Your task to perform on an android device: change the clock style Image 0: 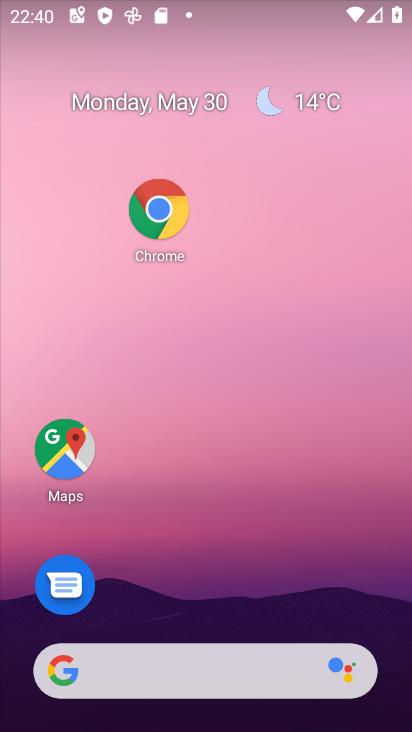
Step 0: drag from (186, 604) to (217, 188)
Your task to perform on an android device: change the clock style Image 1: 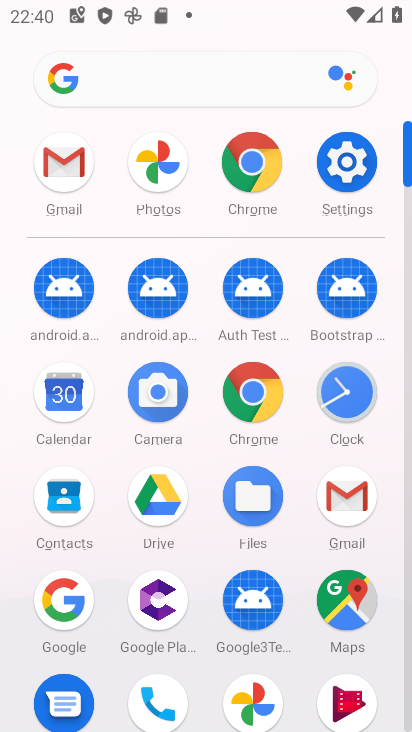
Step 1: click (345, 148)
Your task to perform on an android device: change the clock style Image 2: 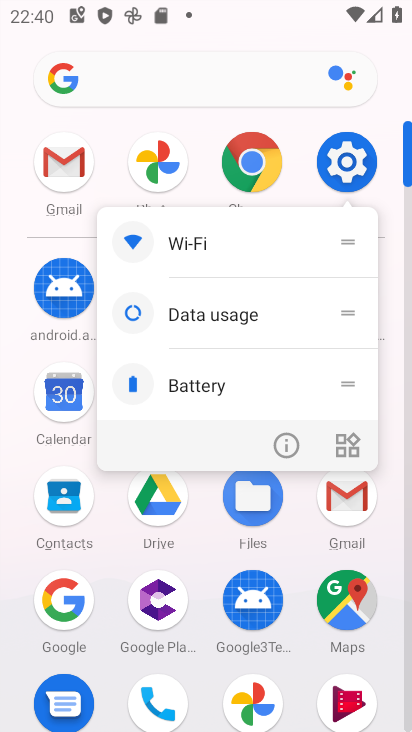
Step 2: click (398, 376)
Your task to perform on an android device: change the clock style Image 3: 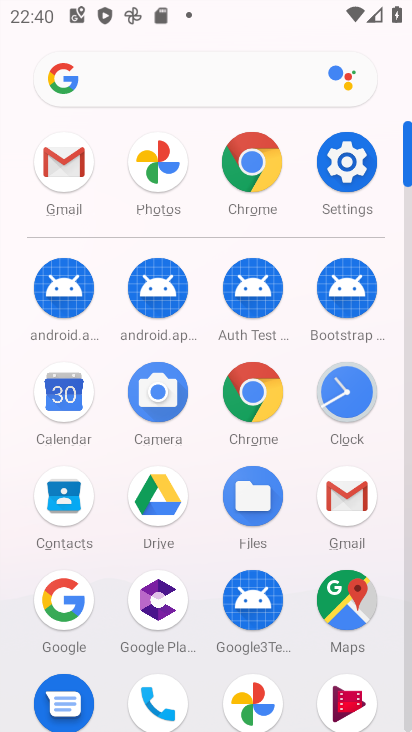
Step 3: click (348, 386)
Your task to perform on an android device: change the clock style Image 4: 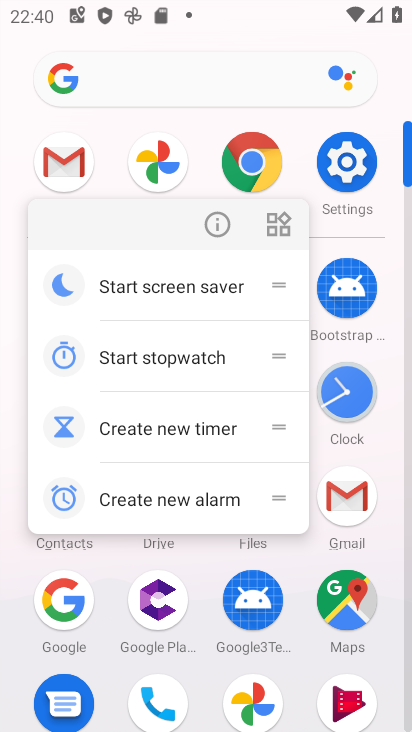
Step 4: click (221, 229)
Your task to perform on an android device: change the clock style Image 5: 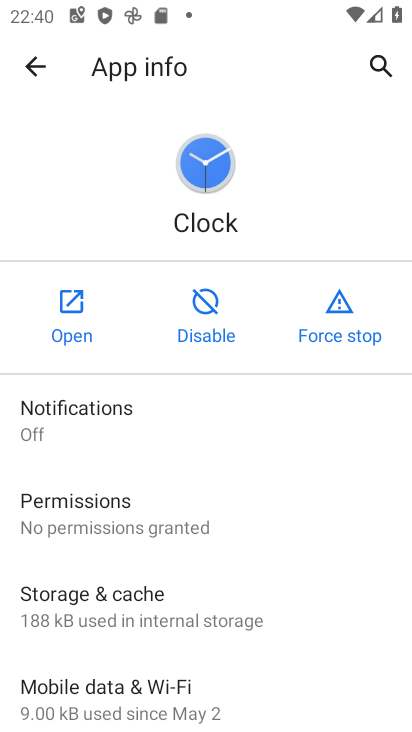
Step 5: click (90, 308)
Your task to perform on an android device: change the clock style Image 6: 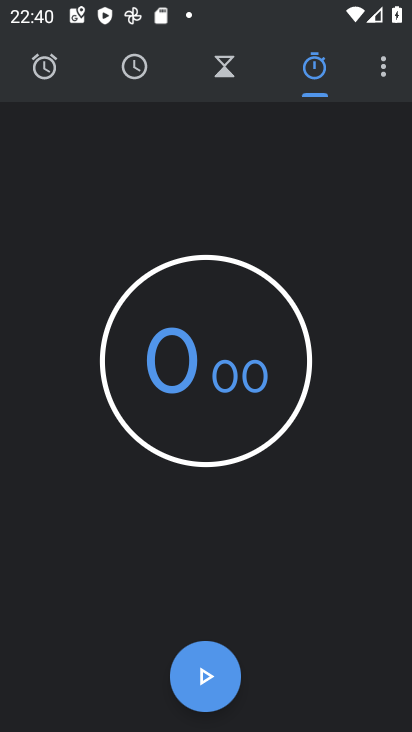
Step 6: drag from (376, 74) to (252, 149)
Your task to perform on an android device: change the clock style Image 7: 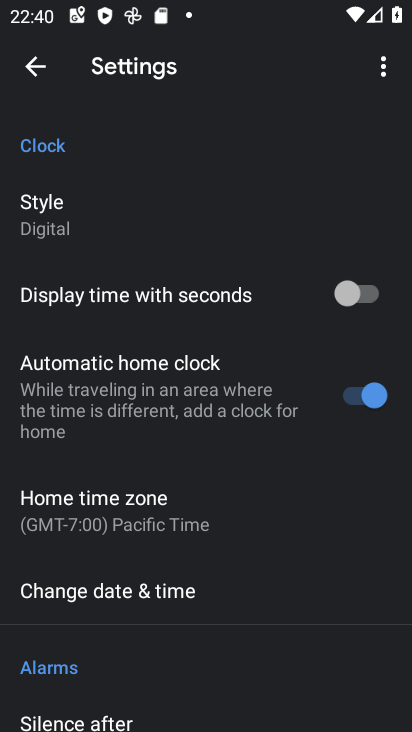
Step 7: click (96, 222)
Your task to perform on an android device: change the clock style Image 8: 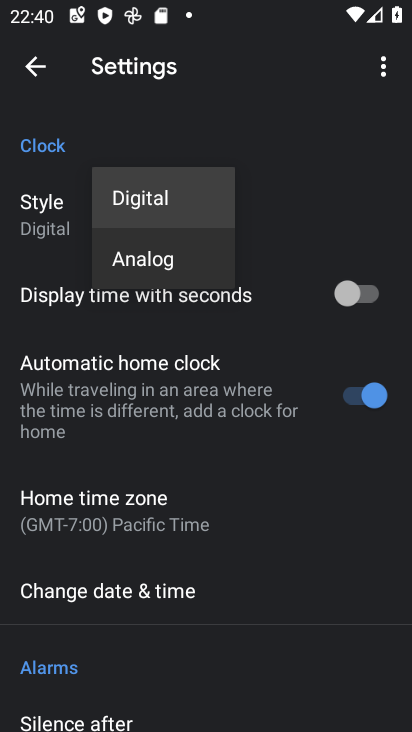
Step 8: click (129, 213)
Your task to perform on an android device: change the clock style Image 9: 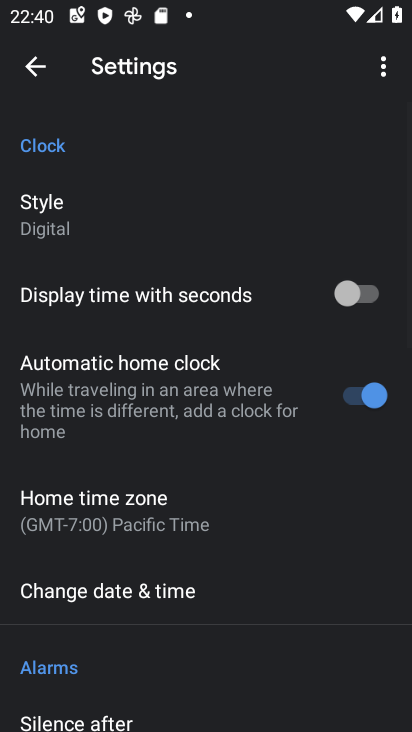
Step 9: task complete